Your task to perform on an android device: toggle wifi Image 0: 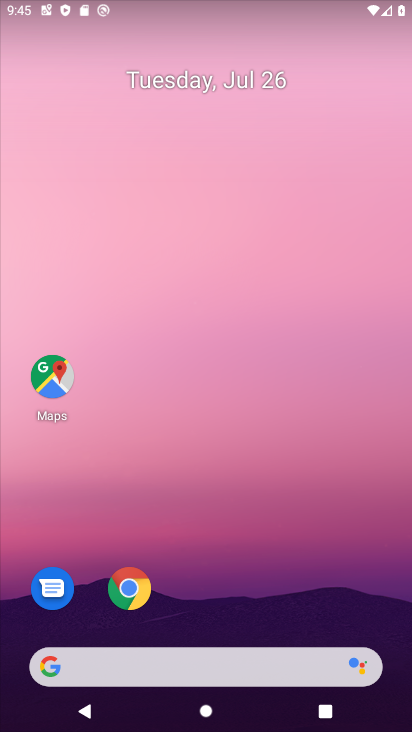
Step 0: drag from (216, 667) to (273, 52)
Your task to perform on an android device: toggle wifi Image 1: 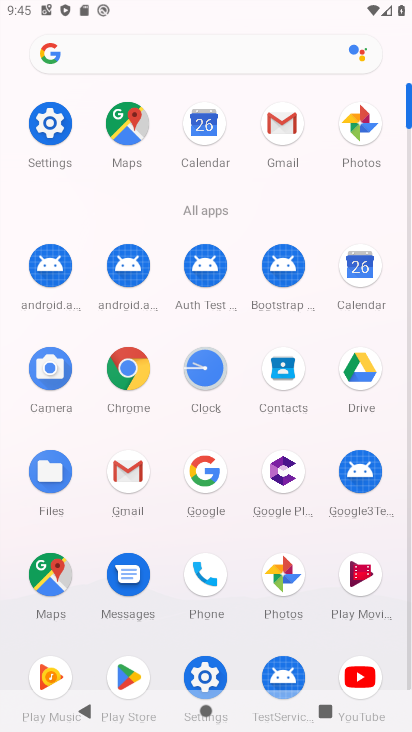
Step 1: click (51, 125)
Your task to perform on an android device: toggle wifi Image 2: 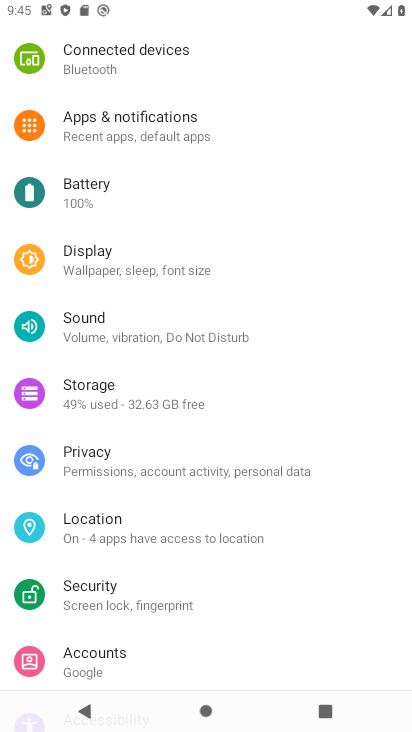
Step 2: drag from (97, 85) to (125, 402)
Your task to perform on an android device: toggle wifi Image 3: 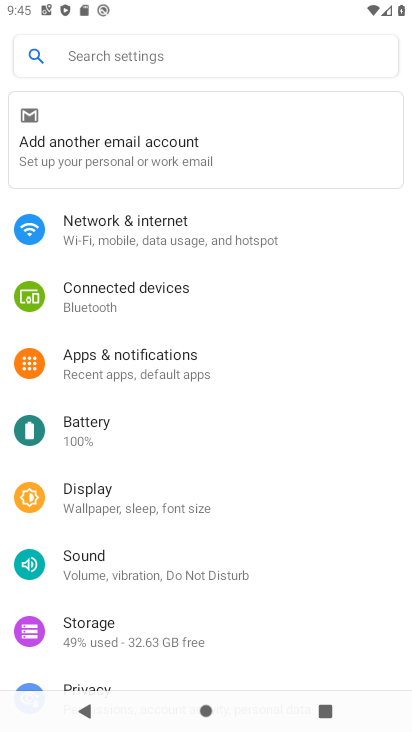
Step 3: click (124, 233)
Your task to perform on an android device: toggle wifi Image 4: 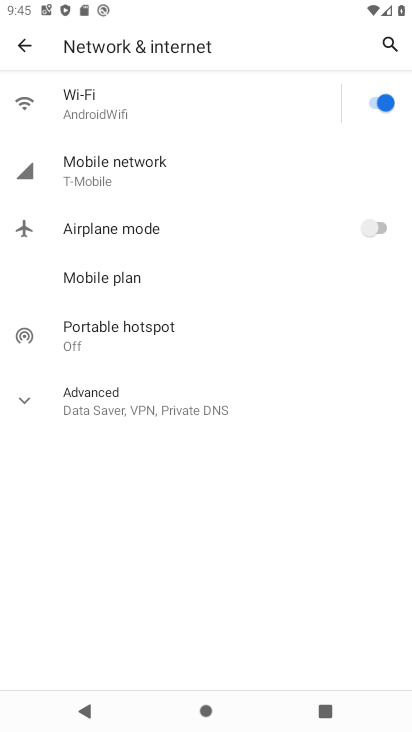
Step 4: click (378, 103)
Your task to perform on an android device: toggle wifi Image 5: 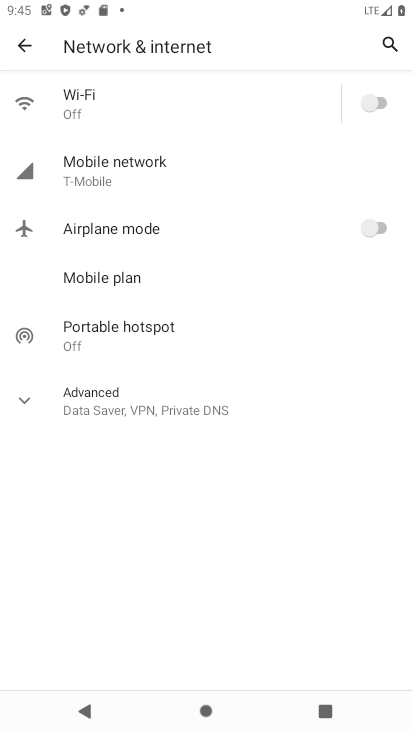
Step 5: task complete